Your task to perform on an android device: When is my next meeting? Image 0: 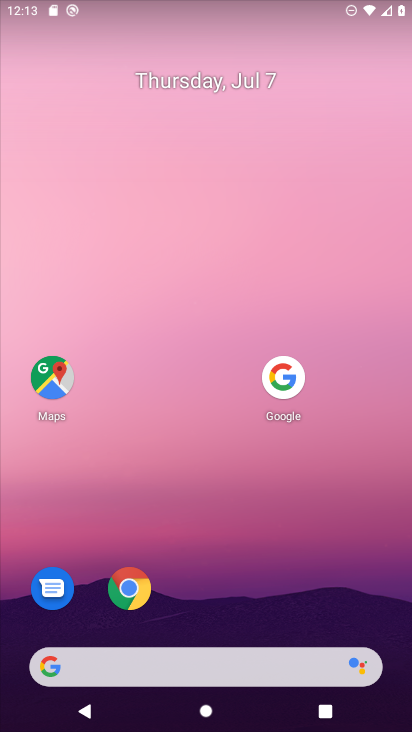
Step 0: drag from (181, 656) to (181, 97)
Your task to perform on an android device: When is my next meeting? Image 1: 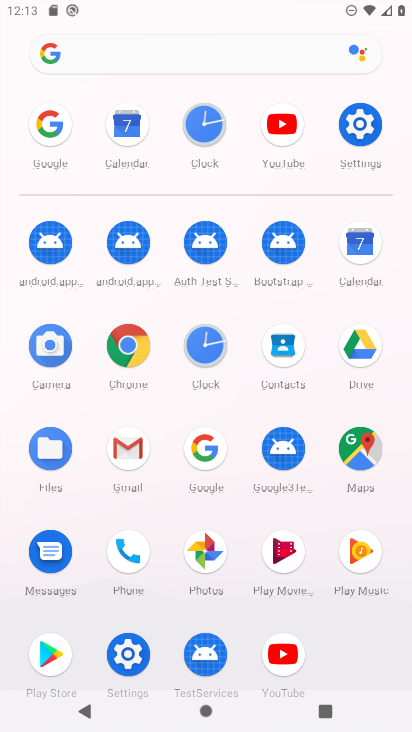
Step 1: click (359, 247)
Your task to perform on an android device: When is my next meeting? Image 2: 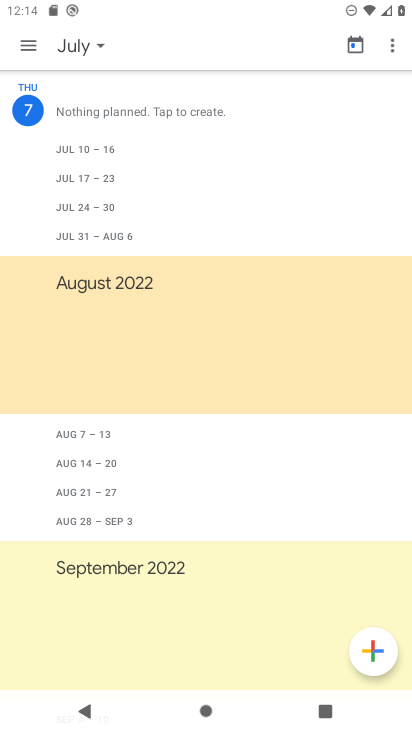
Step 2: click (73, 46)
Your task to perform on an android device: When is my next meeting? Image 3: 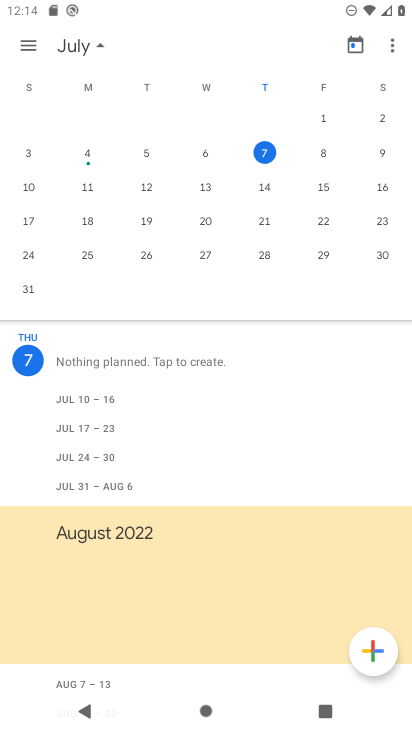
Step 3: click (24, 45)
Your task to perform on an android device: When is my next meeting? Image 4: 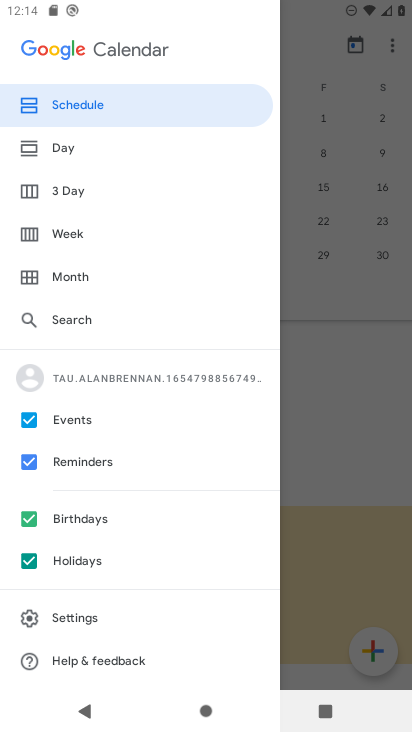
Step 4: click (74, 237)
Your task to perform on an android device: When is my next meeting? Image 5: 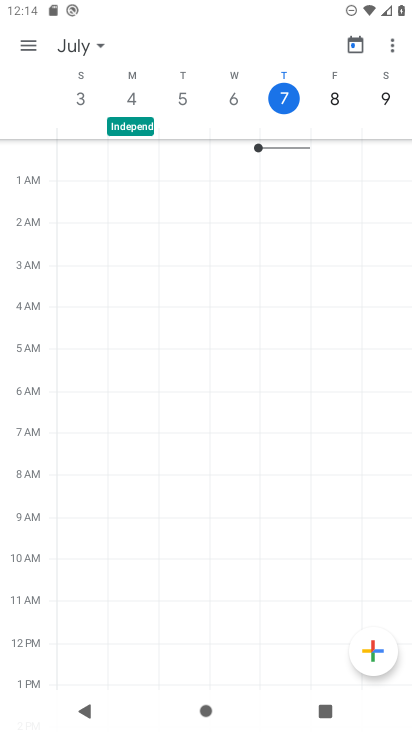
Step 5: click (28, 42)
Your task to perform on an android device: When is my next meeting? Image 6: 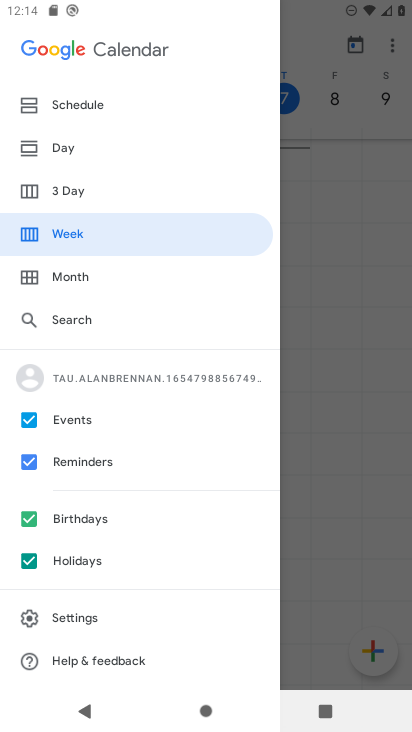
Step 6: click (90, 102)
Your task to perform on an android device: When is my next meeting? Image 7: 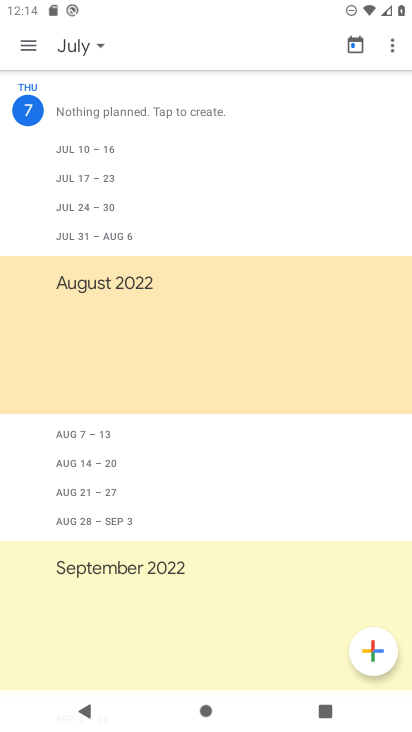
Step 7: task complete